Your task to perform on an android device: stop showing notifications on the lock screen Image 0: 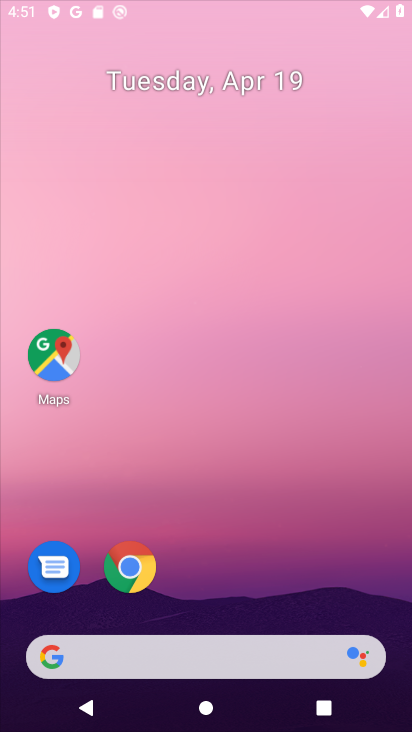
Step 0: click (351, 59)
Your task to perform on an android device: stop showing notifications on the lock screen Image 1: 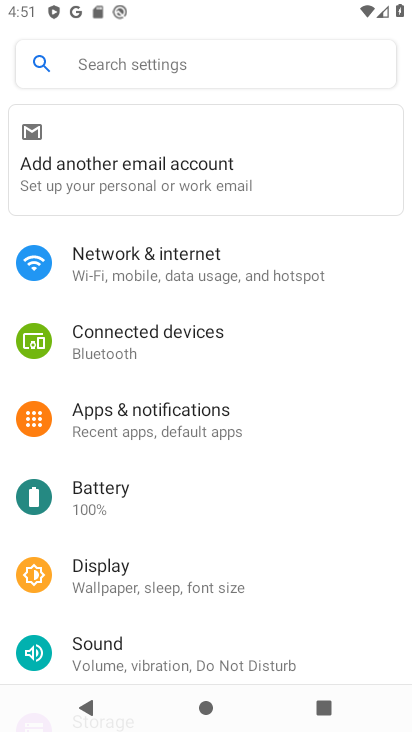
Step 1: drag from (257, 619) to (296, 152)
Your task to perform on an android device: stop showing notifications on the lock screen Image 2: 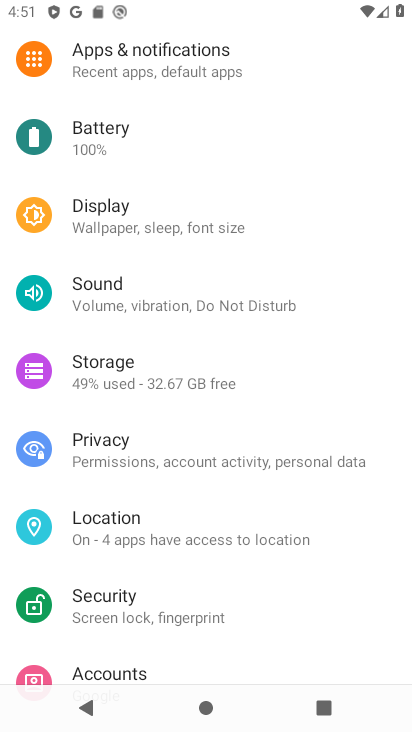
Step 2: drag from (248, 635) to (340, 170)
Your task to perform on an android device: stop showing notifications on the lock screen Image 3: 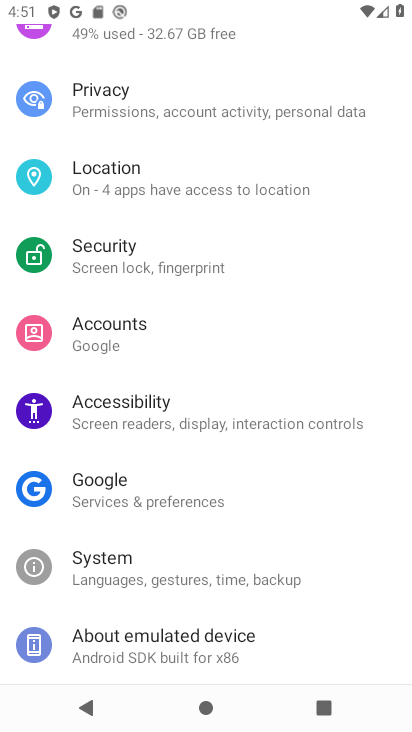
Step 3: drag from (231, 203) to (226, 690)
Your task to perform on an android device: stop showing notifications on the lock screen Image 4: 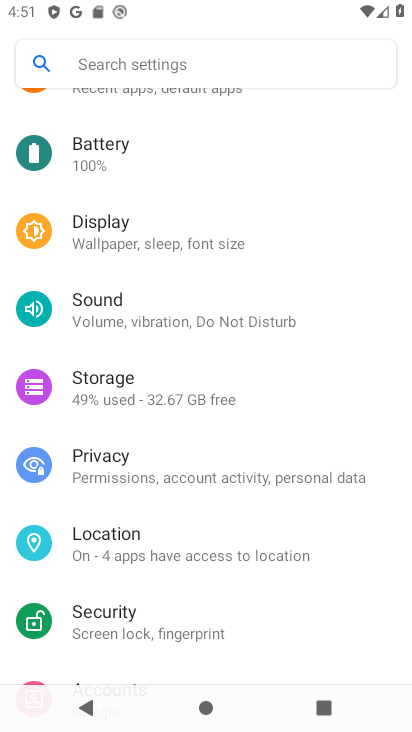
Step 4: drag from (198, 177) to (237, 677)
Your task to perform on an android device: stop showing notifications on the lock screen Image 5: 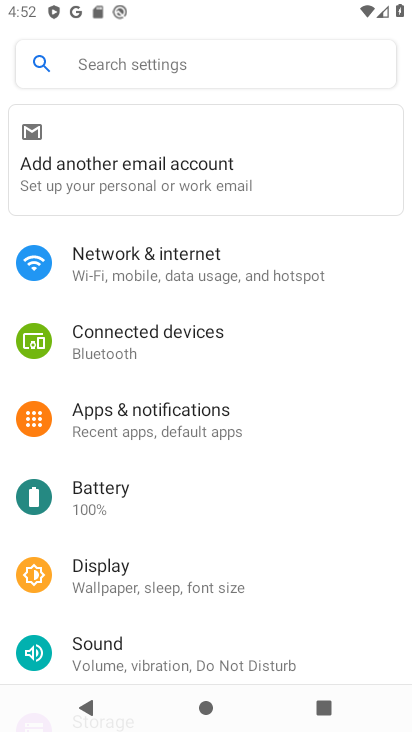
Step 5: click (215, 414)
Your task to perform on an android device: stop showing notifications on the lock screen Image 6: 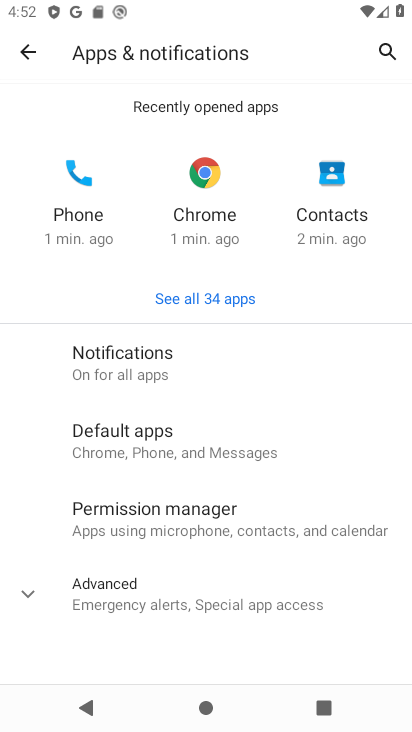
Step 6: click (230, 373)
Your task to perform on an android device: stop showing notifications on the lock screen Image 7: 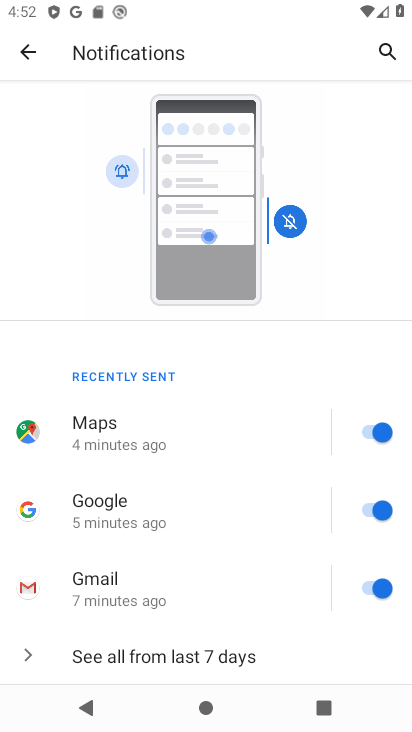
Step 7: drag from (251, 653) to (289, 112)
Your task to perform on an android device: stop showing notifications on the lock screen Image 8: 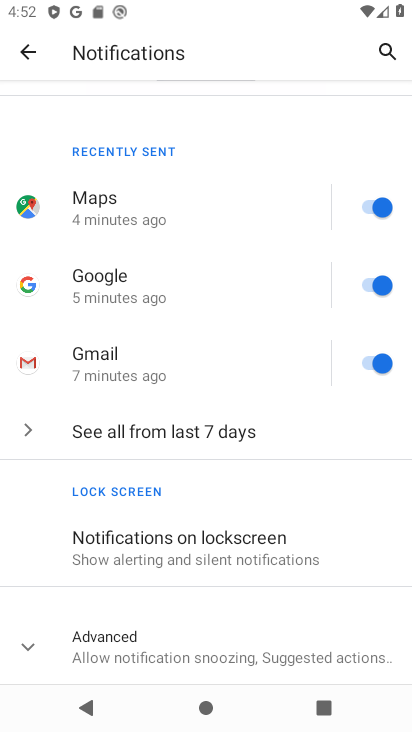
Step 8: click (252, 554)
Your task to perform on an android device: stop showing notifications on the lock screen Image 9: 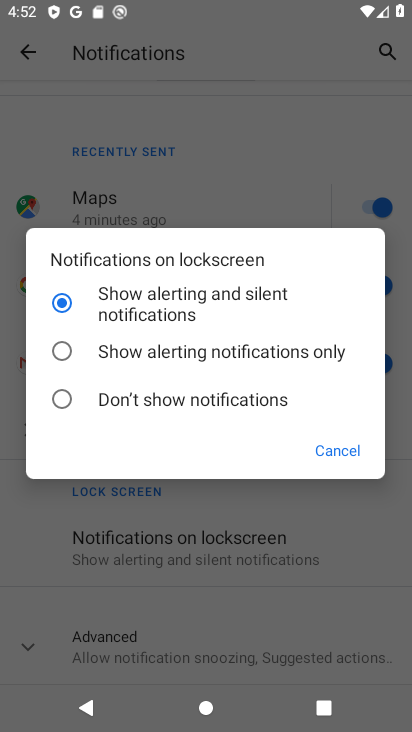
Step 9: click (182, 408)
Your task to perform on an android device: stop showing notifications on the lock screen Image 10: 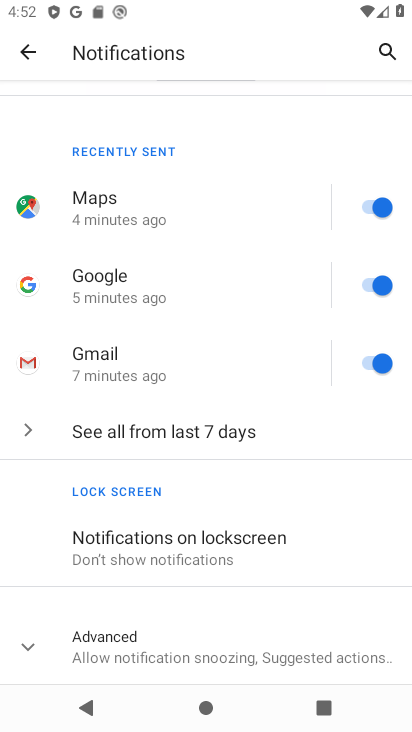
Step 10: task complete